Your task to perform on an android device: check out phone information Image 0: 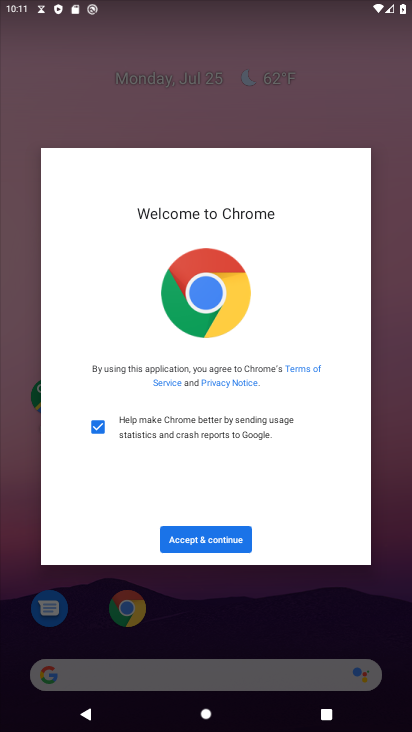
Step 0: press home button
Your task to perform on an android device: check out phone information Image 1: 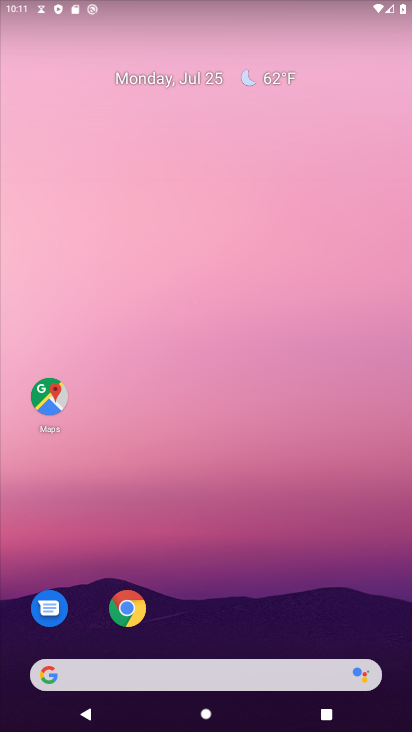
Step 1: drag from (191, 672) to (172, 118)
Your task to perform on an android device: check out phone information Image 2: 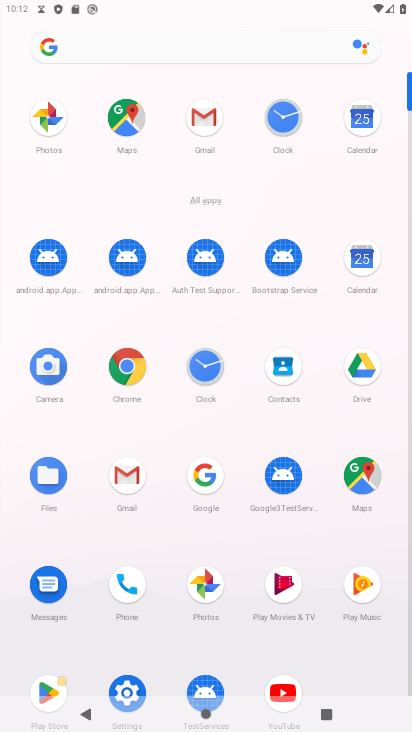
Step 2: click (129, 686)
Your task to perform on an android device: check out phone information Image 3: 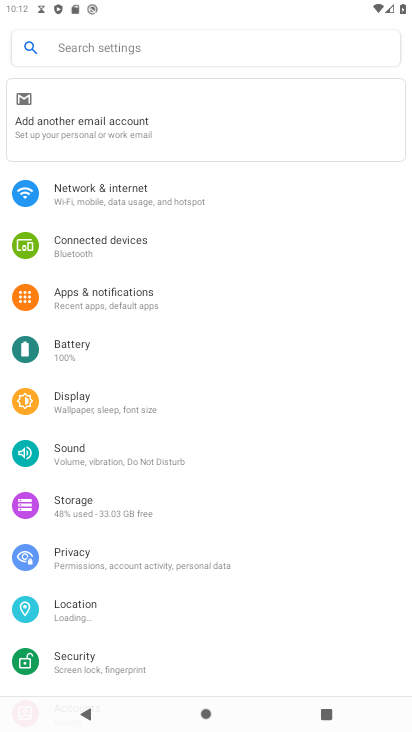
Step 3: drag from (147, 589) to (192, 503)
Your task to perform on an android device: check out phone information Image 4: 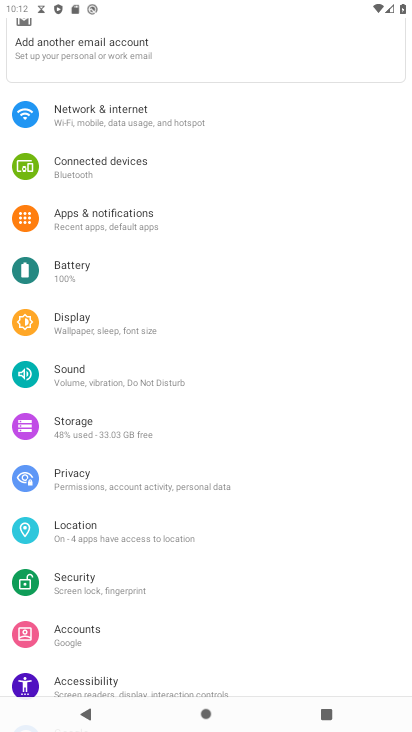
Step 4: drag from (102, 567) to (169, 487)
Your task to perform on an android device: check out phone information Image 5: 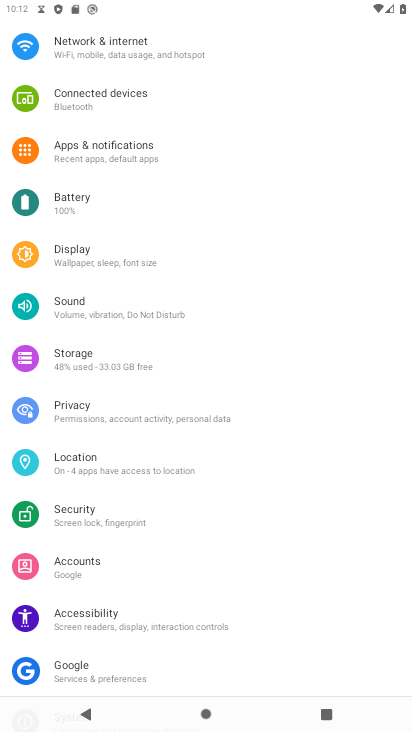
Step 5: drag from (129, 552) to (178, 473)
Your task to perform on an android device: check out phone information Image 6: 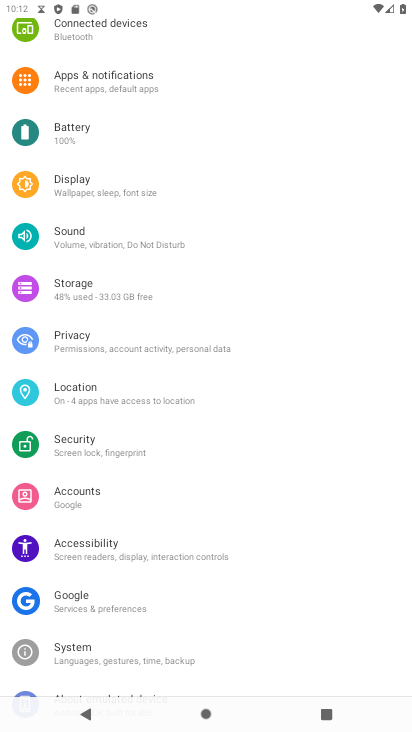
Step 6: drag from (117, 522) to (136, 432)
Your task to perform on an android device: check out phone information Image 7: 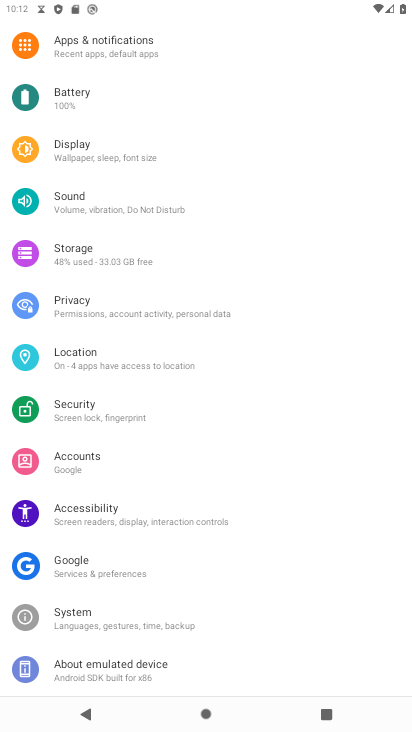
Step 7: click (104, 663)
Your task to perform on an android device: check out phone information Image 8: 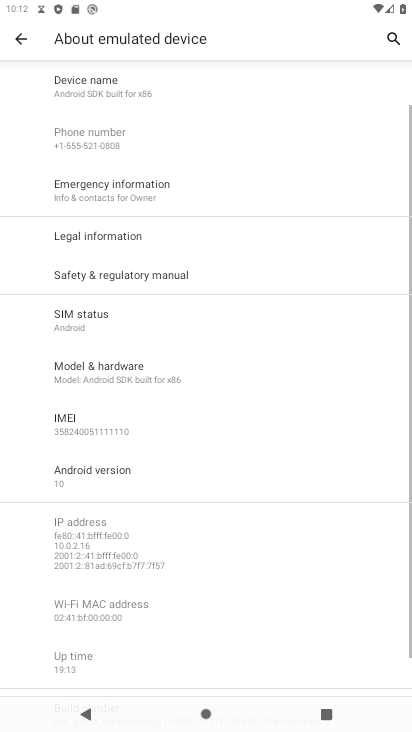
Step 8: task complete